Your task to perform on an android device: What is the recent news? Image 0: 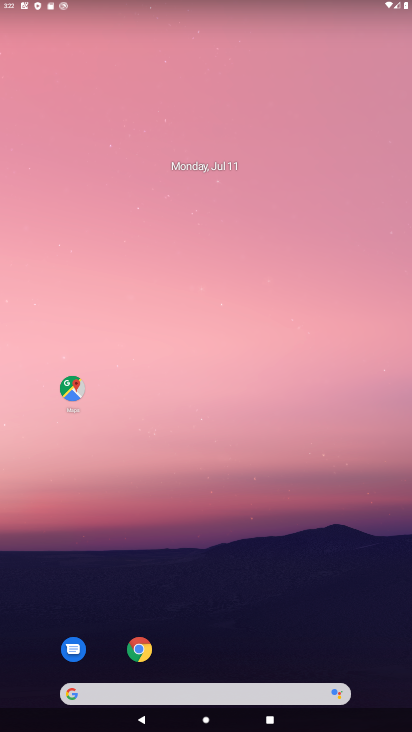
Step 0: click (276, 139)
Your task to perform on an android device: What is the recent news? Image 1: 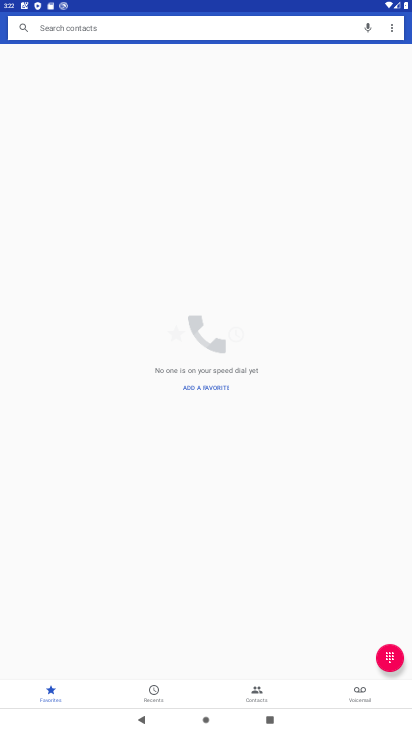
Step 1: press home button
Your task to perform on an android device: What is the recent news? Image 2: 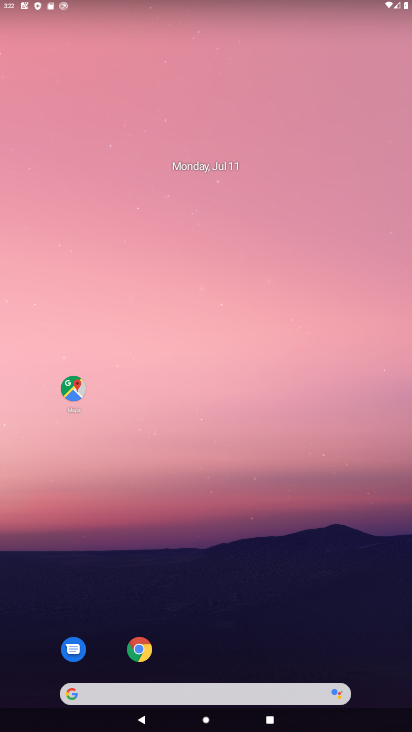
Step 2: drag from (215, 701) to (298, 103)
Your task to perform on an android device: What is the recent news? Image 3: 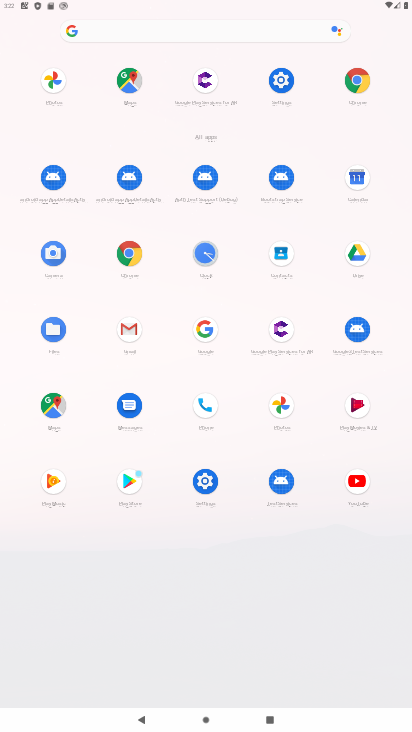
Step 3: click (146, 264)
Your task to perform on an android device: What is the recent news? Image 4: 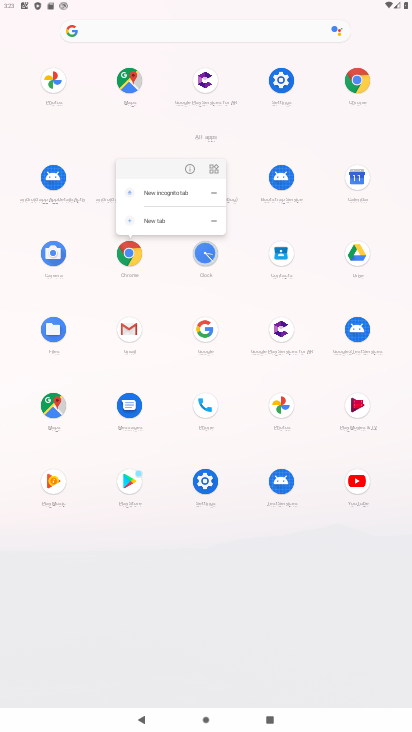
Step 4: click (138, 257)
Your task to perform on an android device: What is the recent news? Image 5: 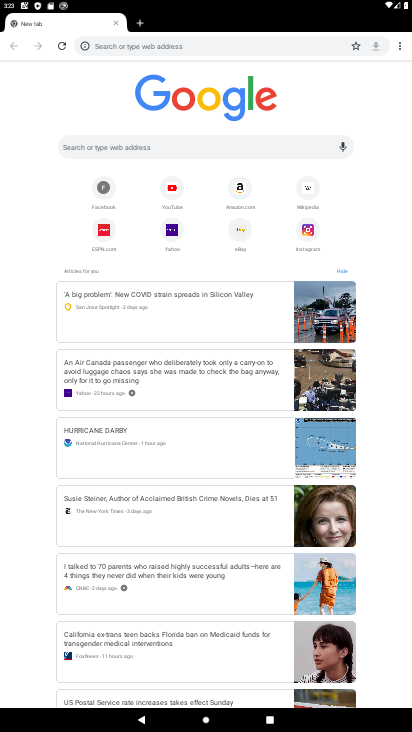
Step 5: task complete